Your task to perform on an android device: open app "The Home Depot" Image 0: 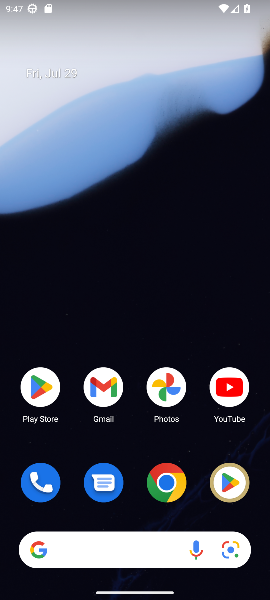
Step 0: press home button
Your task to perform on an android device: open app "The Home Depot" Image 1: 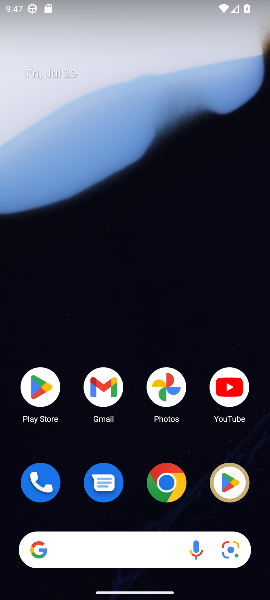
Step 1: click (230, 484)
Your task to perform on an android device: open app "The Home Depot" Image 2: 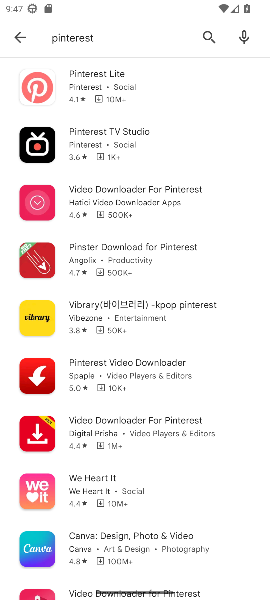
Step 2: click (18, 31)
Your task to perform on an android device: open app "The Home Depot" Image 3: 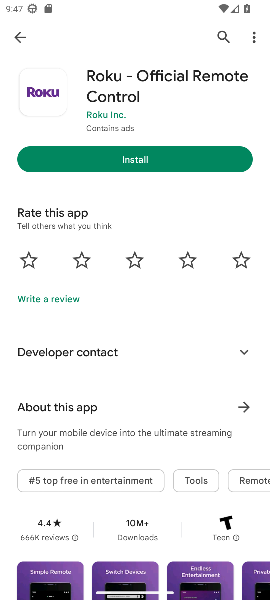
Step 3: click (219, 30)
Your task to perform on an android device: open app "The Home Depot" Image 4: 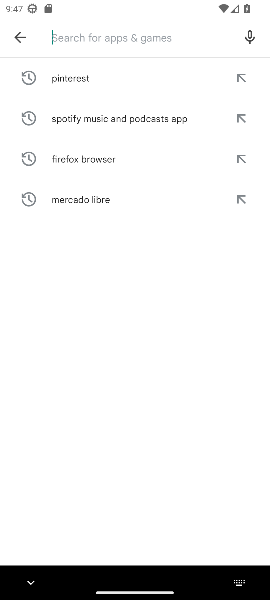
Step 4: type "The Home Depot"
Your task to perform on an android device: open app "The Home Depot" Image 5: 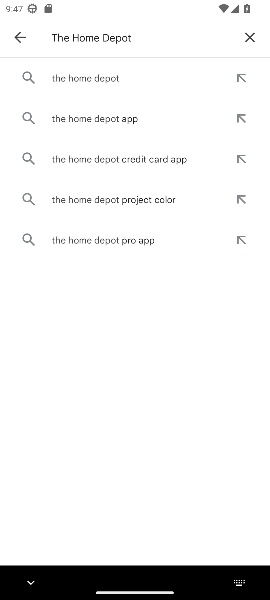
Step 5: click (92, 77)
Your task to perform on an android device: open app "The Home Depot" Image 6: 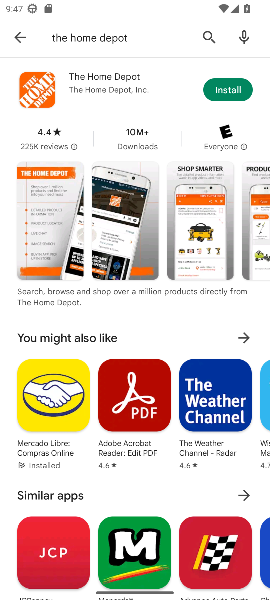
Step 6: task complete